Your task to perform on an android device: Clear the shopping cart on target. Add "razer blade" to the cart on target Image 0: 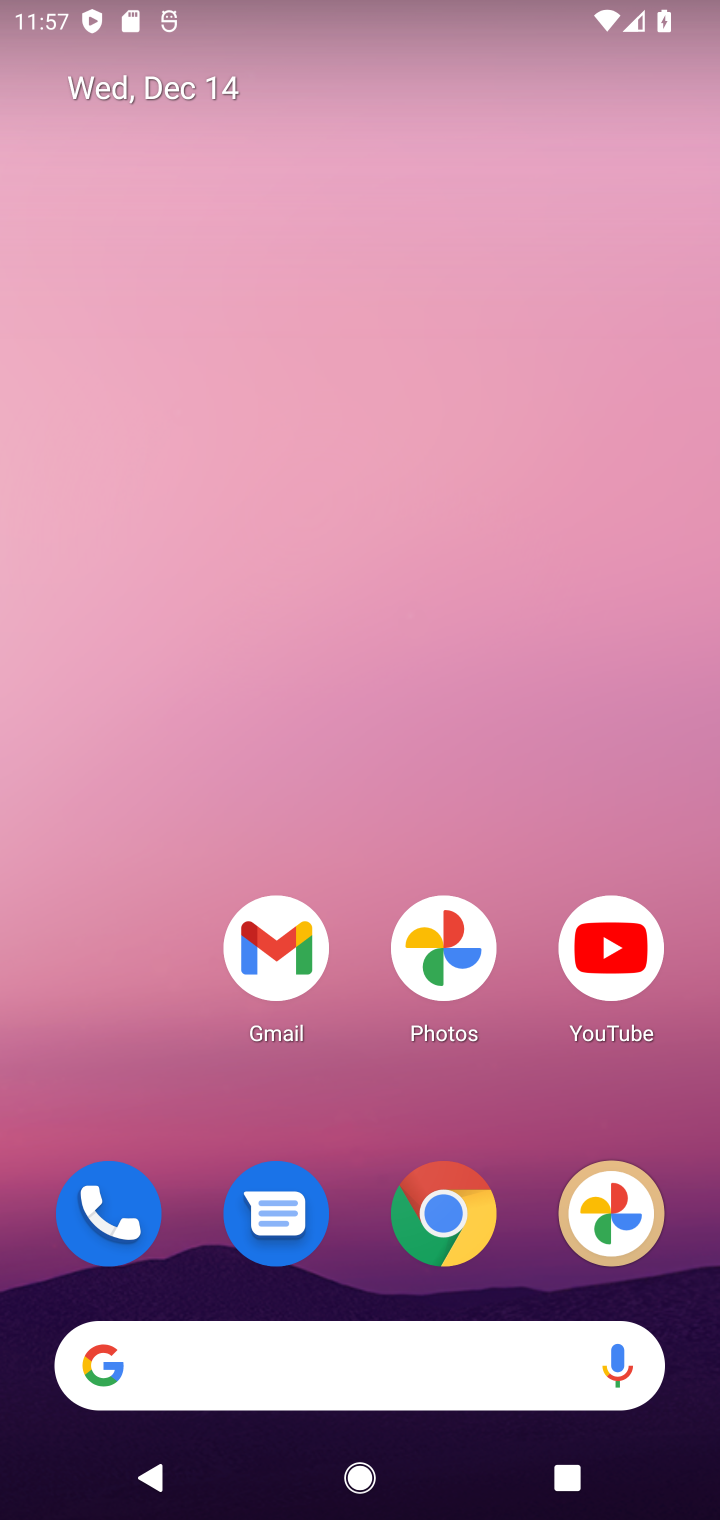
Step 0: click (386, 1346)
Your task to perform on an android device: Clear the shopping cart on target. Add "razer blade" to the cart on target Image 1: 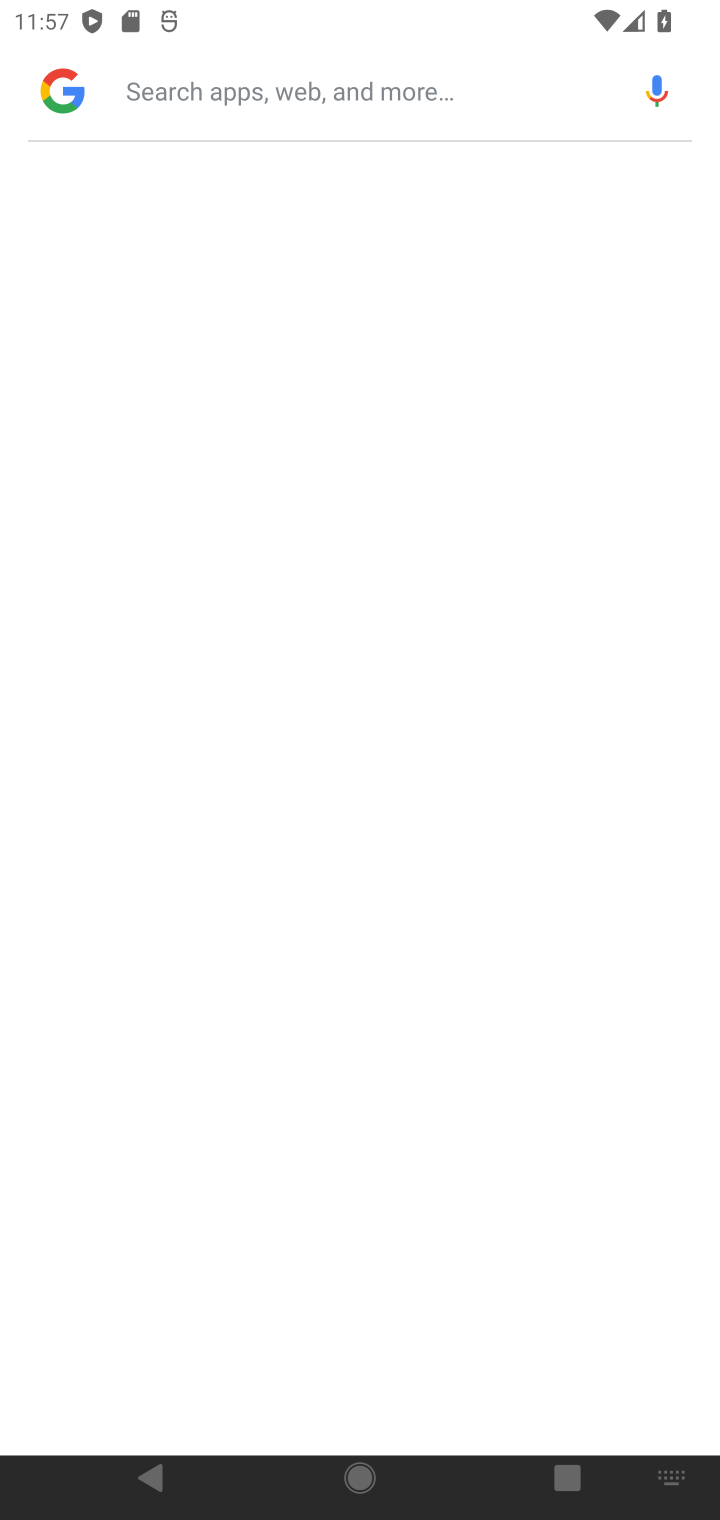
Step 1: type "target"
Your task to perform on an android device: Clear the shopping cart on target. Add "razer blade" to the cart on target Image 2: 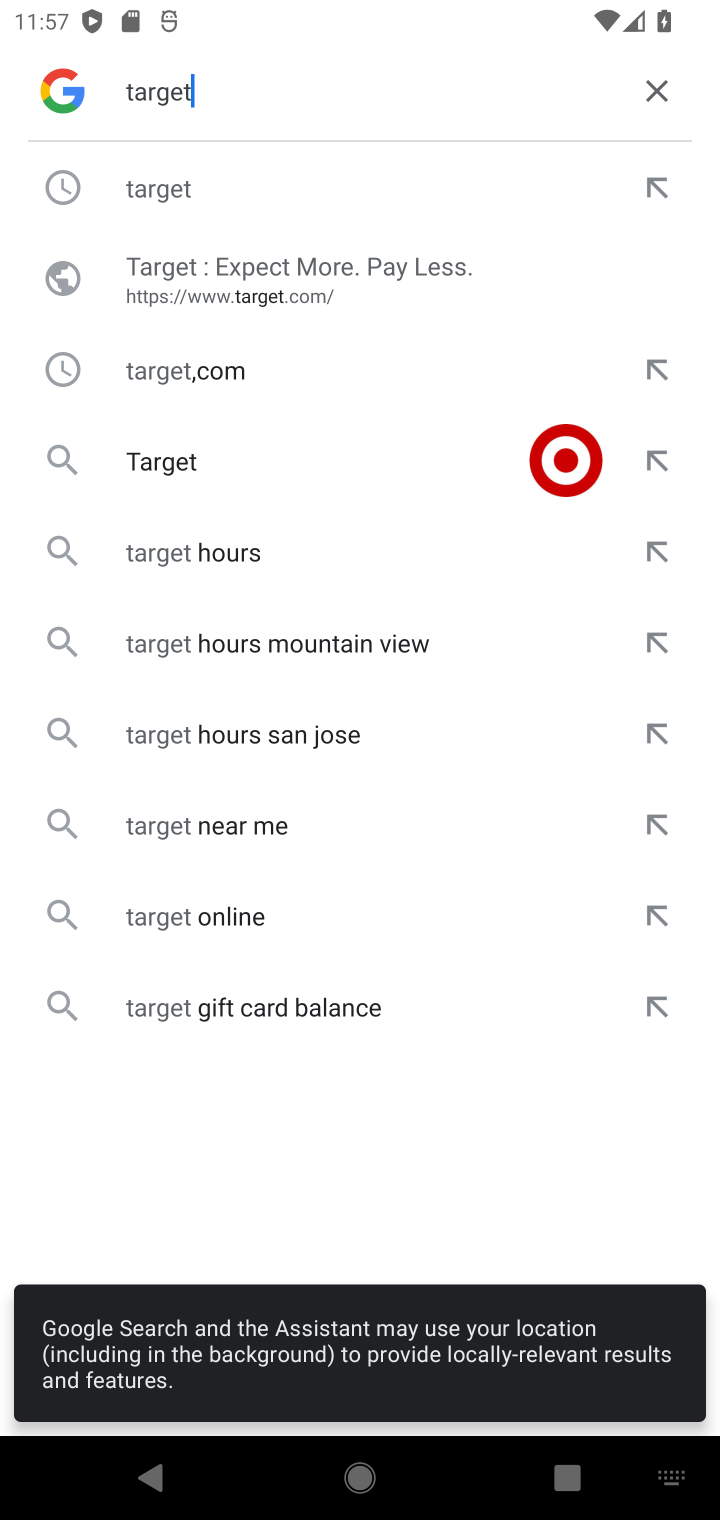
Step 2: click (217, 449)
Your task to perform on an android device: Clear the shopping cart on target. Add "razer blade" to the cart on target Image 3: 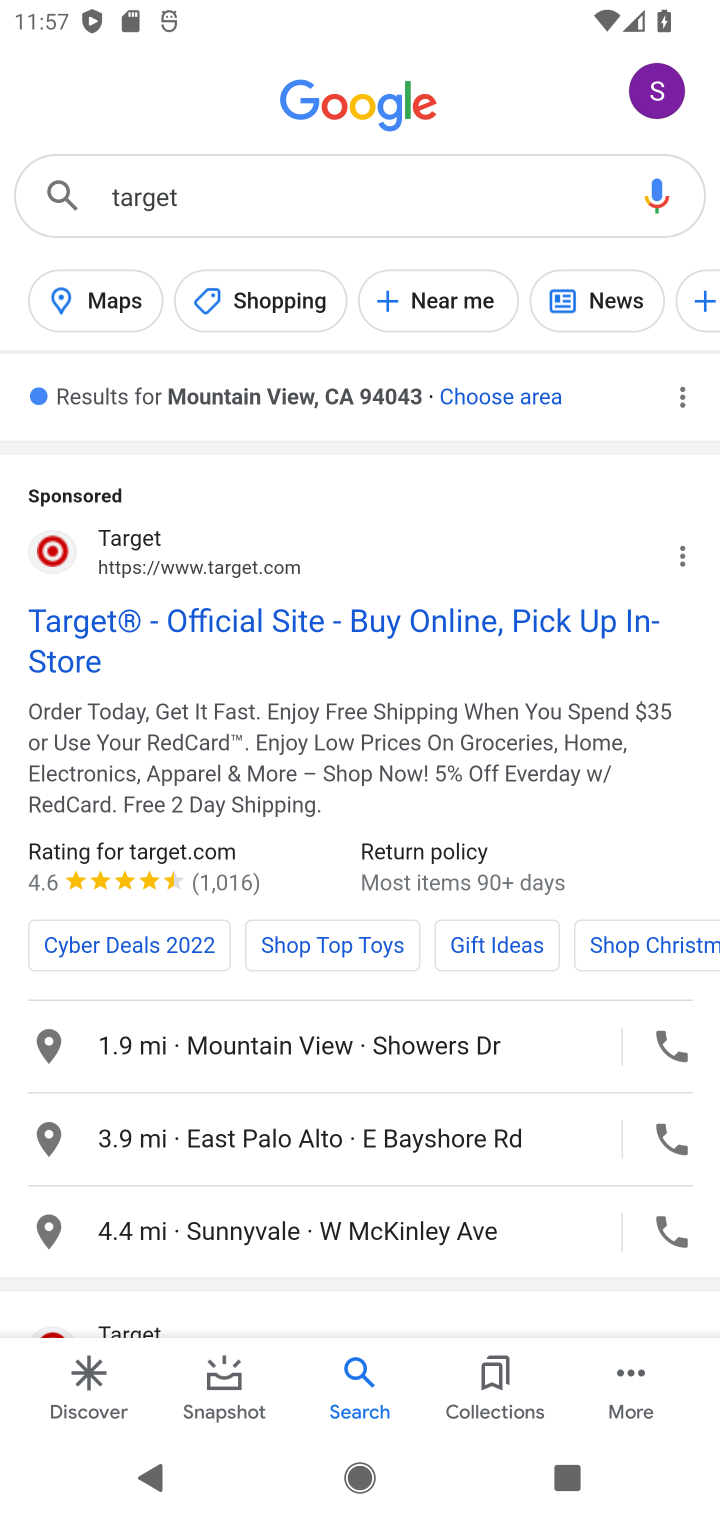
Step 3: click (130, 596)
Your task to perform on an android device: Clear the shopping cart on target. Add "razer blade" to the cart on target Image 4: 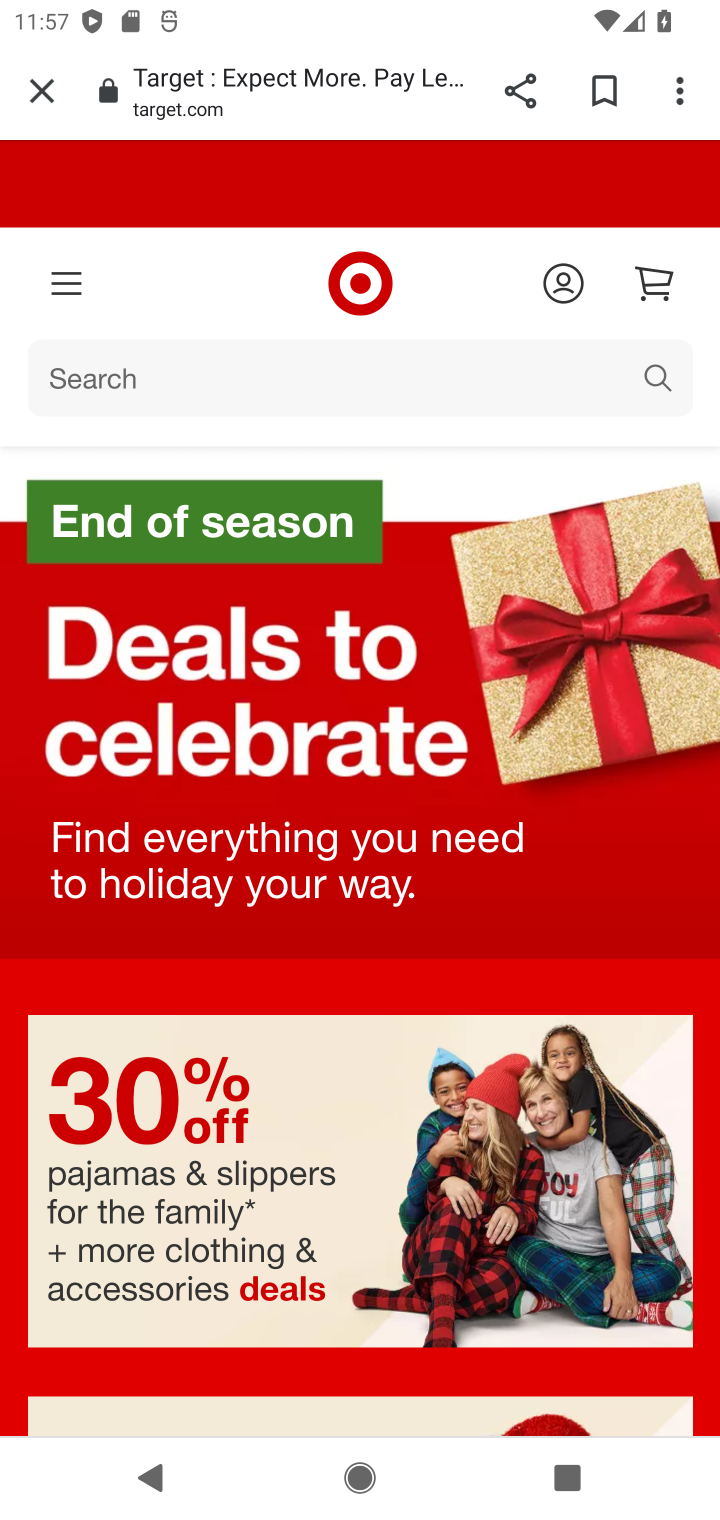
Step 4: click (179, 371)
Your task to perform on an android device: Clear the shopping cart on target. Add "razer blade" to the cart on target Image 5: 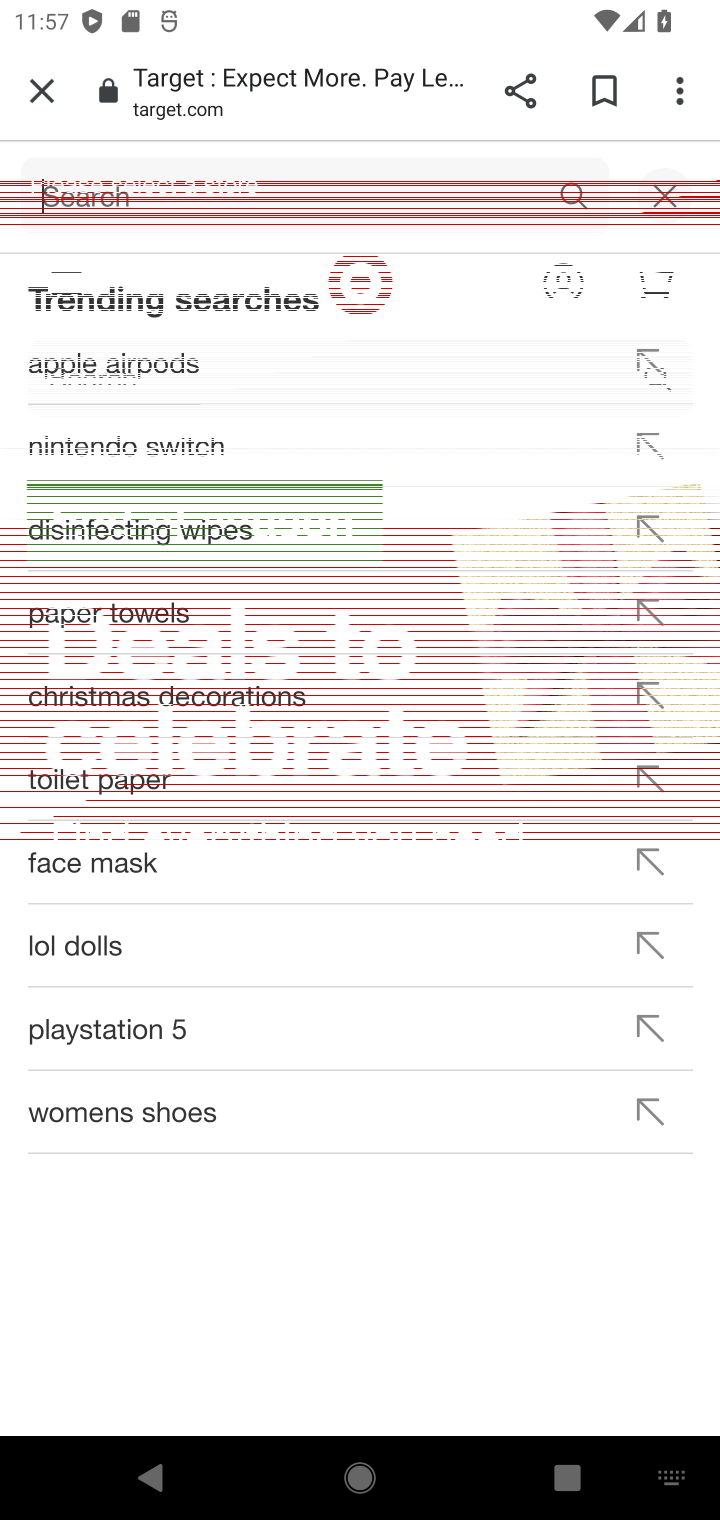
Step 5: type "razer blade"
Your task to perform on an android device: Clear the shopping cart on target. Add "razer blade" to the cart on target Image 6: 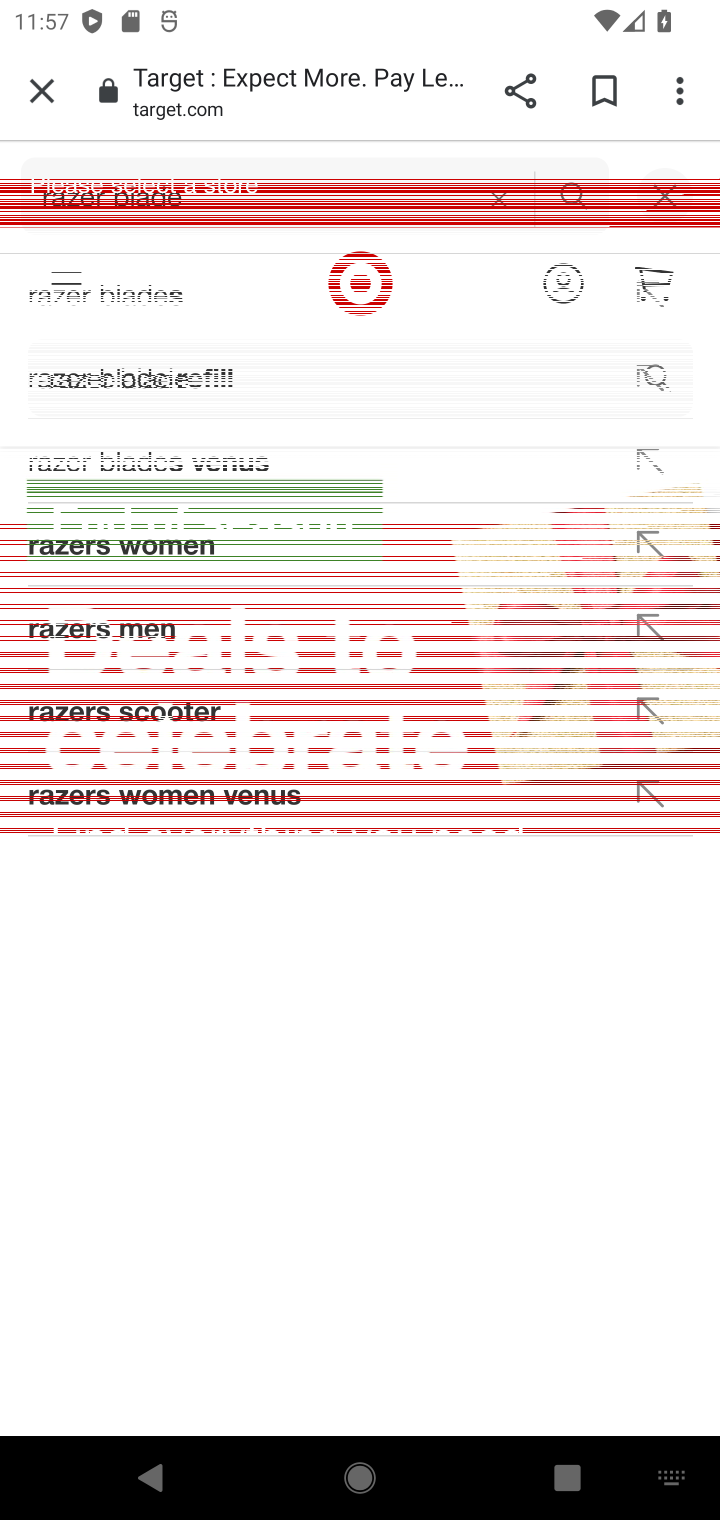
Step 6: click (574, 209)
Your task to perform on an android device: Clear the shopping cart on target. Add "razer blade" to the cart on target Image 7: 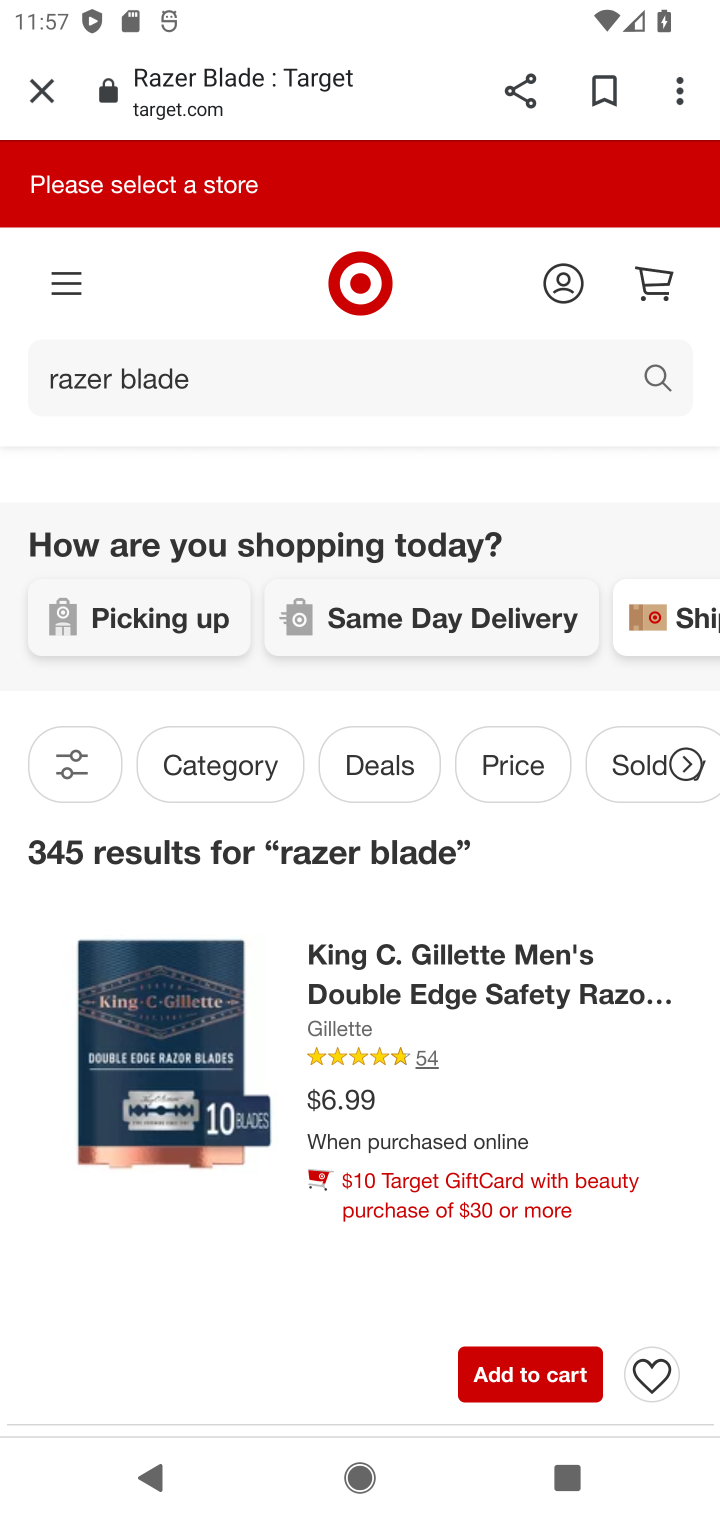
Step 7: click (515, 1359)
Your task to perform on an android device: Clear the shopping cart on target. Add "razer blade" to the cart on target Image 8: 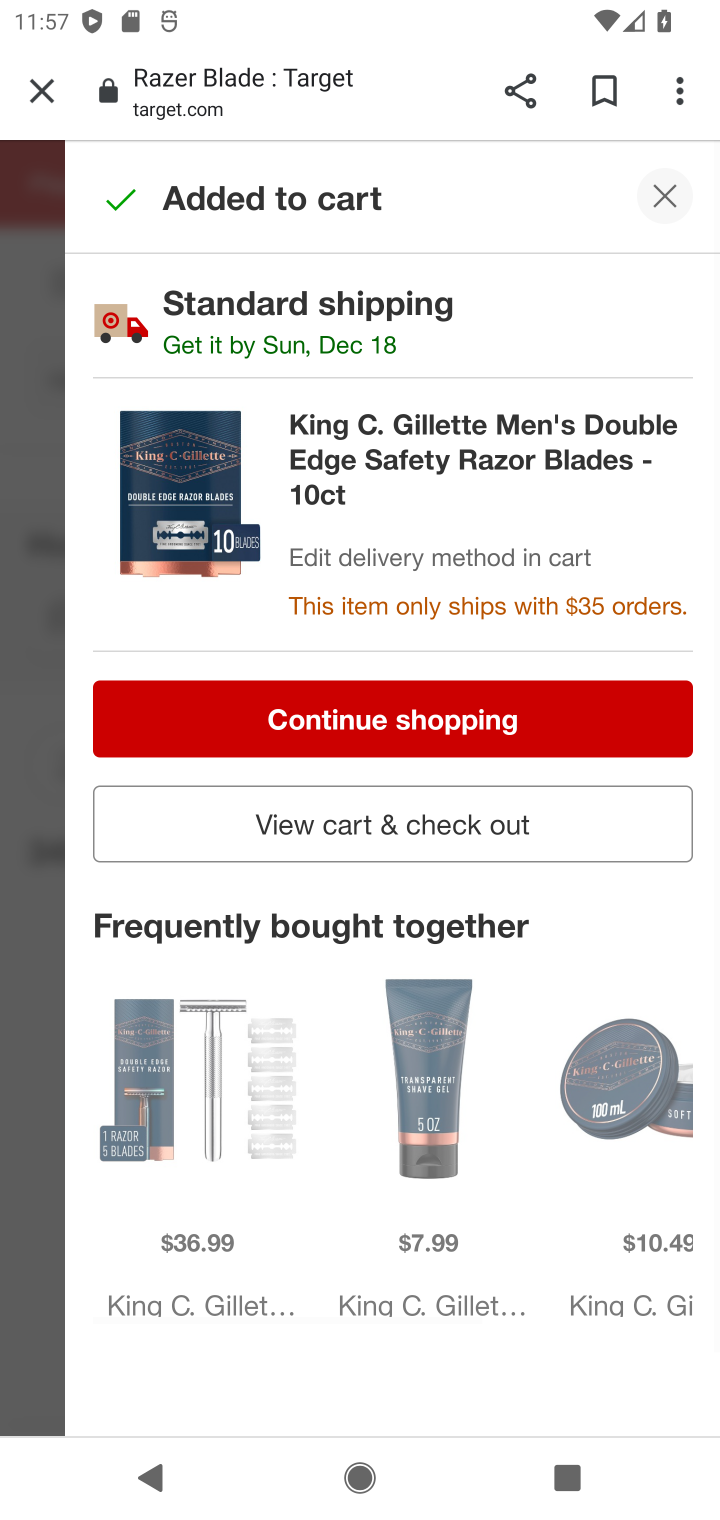
Step 8: task complete